Your task to perform on an android device: Search for vegetarian restaurants on Maps Image 0: 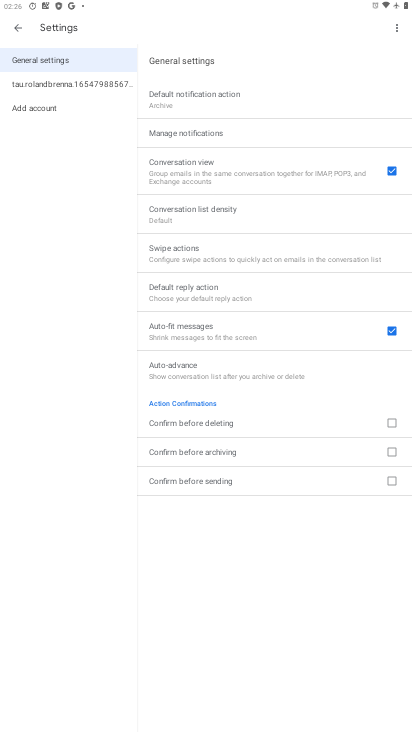
Step 0: press home button
Your task to perform on an android device: Search for vegetarian restaurants on Maps Image 1: 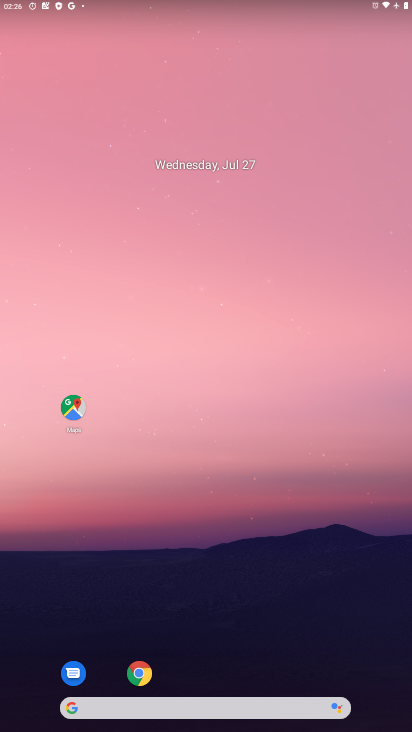
Step 1: click (79, 405)
Your task to perform on an android device: Search for vegetarian restaurants on Maps Image 2: 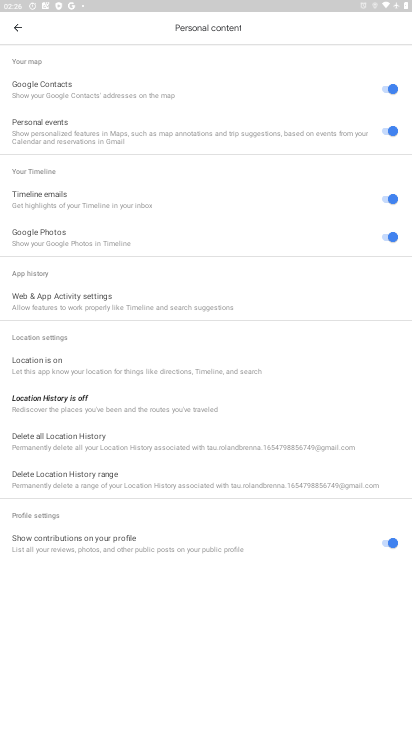
Step 2: click (16, 27)
Your task to perform on an android device: Search for vegetarian restaurants on Maps Image 3: 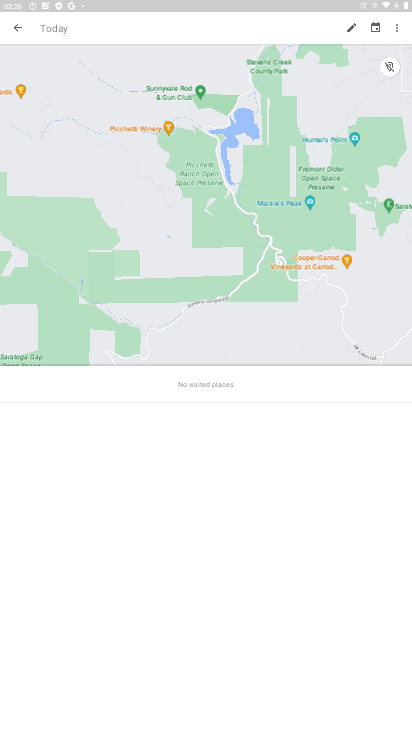
Step 3: click (19, 29)
Your task to perform on an android device: Search for vegetarian restaurants on Maps Image 4: 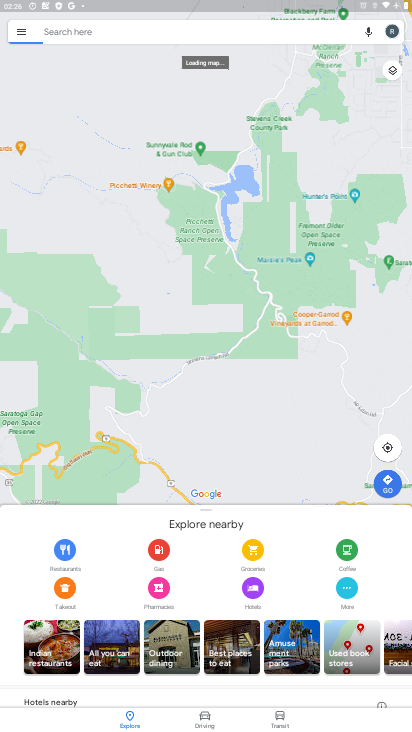
Step 4: click (73, 30)
Your task to perform on an android device: Search for vegetarian restaurants on Maps Image 5: 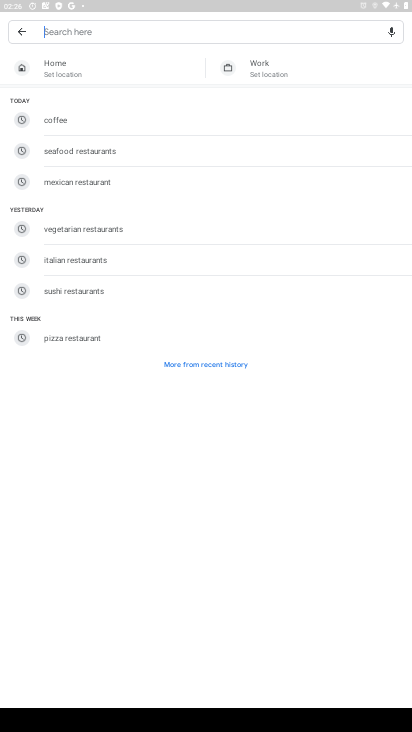
Step 5: type "vegetarian restaurants"
Your task to perform on an android device: Search for vegetarian restaurants on Maps Image 6: 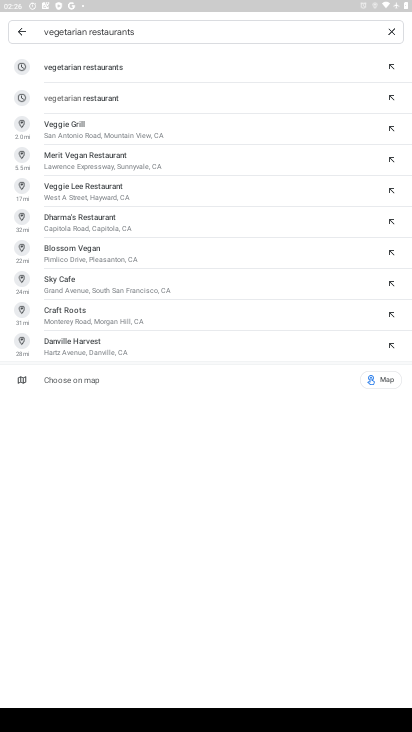
Step 6: click (90, 77)
Your task to perform on an android device: Search for vegetarian restaurants on Maps Image 7: 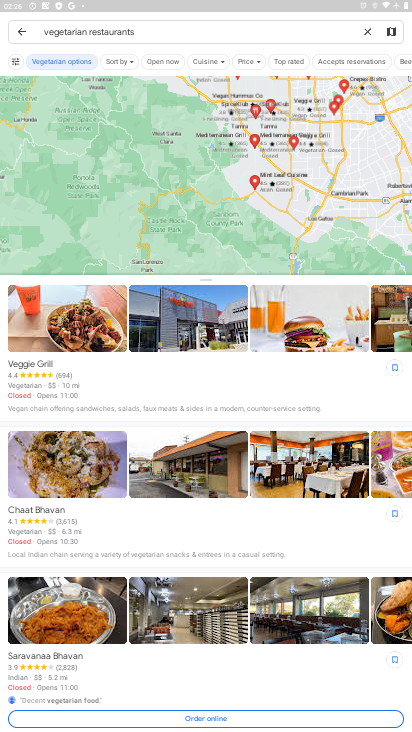
Step 7: task complete